Your task to perform on an android device: Do I have any events this weekend? Image 0: 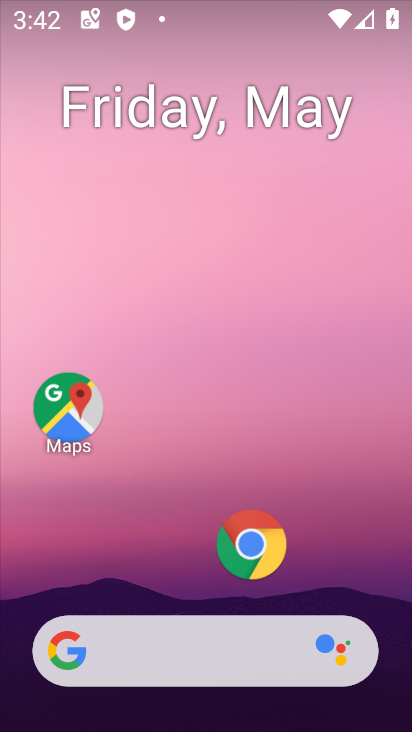
Step 0: drag from (201, 593) to (195, 239)
Your task to perform on an android device: Do I have any events this weekend? Image 1: 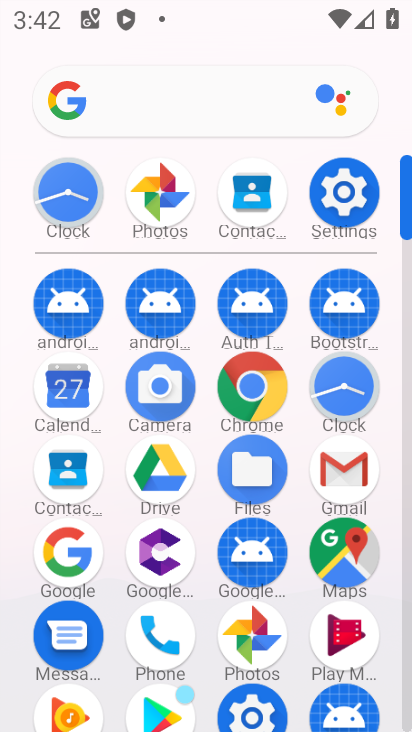
Step 1: click (81, 392)
Your task to perform on an android device: Do I have any events this weekend? Image 2: 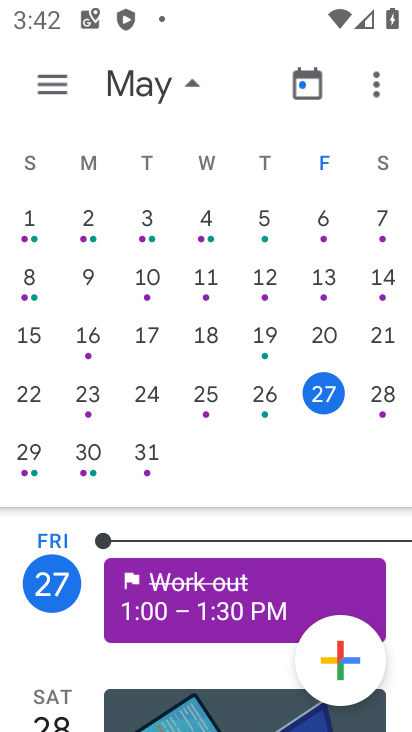
Step 2: click (373, 404)
Your task to perform on an android device: Do I have any events this weekend? Image 3: 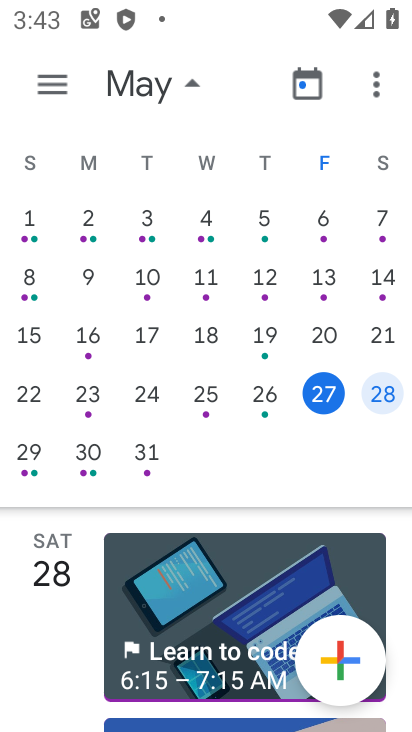
Step 3: click (374, 400)
Your task to perform on an android device: Do I have any events this weekend? Image 4: 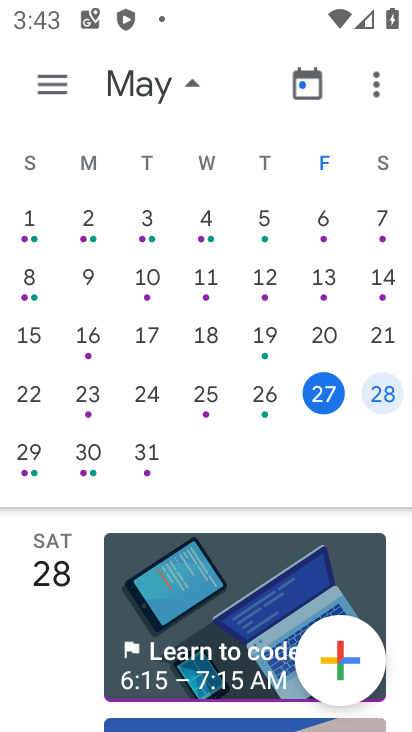
Step 4: task complete